Your task to perform on an android device: turn pop-ups off in chrome Image 0: 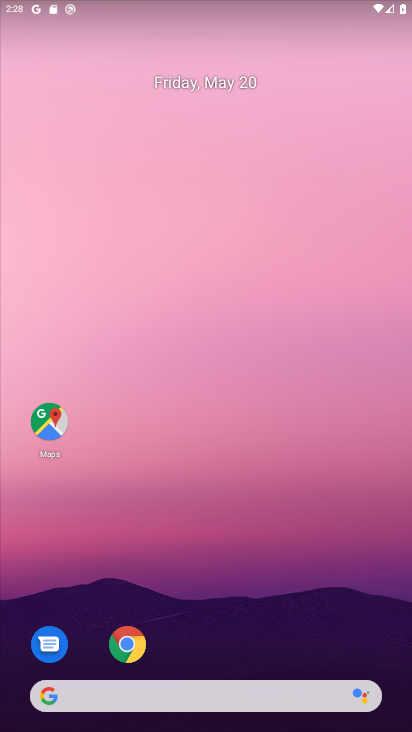
Step 0: click (139, 647)
Your task to perform on an android device: turn pop-ups off in chrome Image 1: 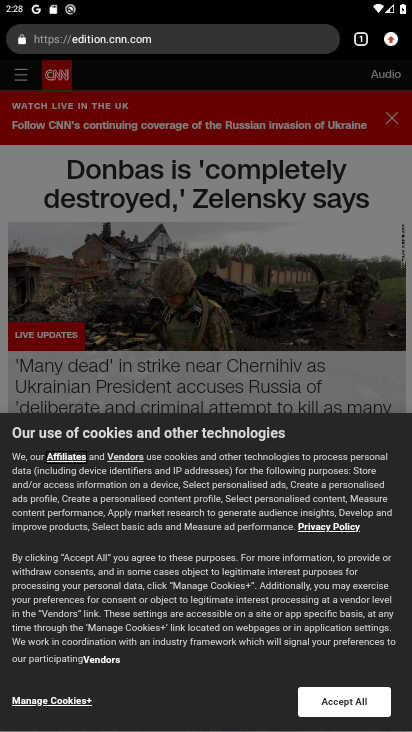
Step 1: click (394, 38)
Your task to perform on an android device: turn pop-ups off in chrome Image 2: 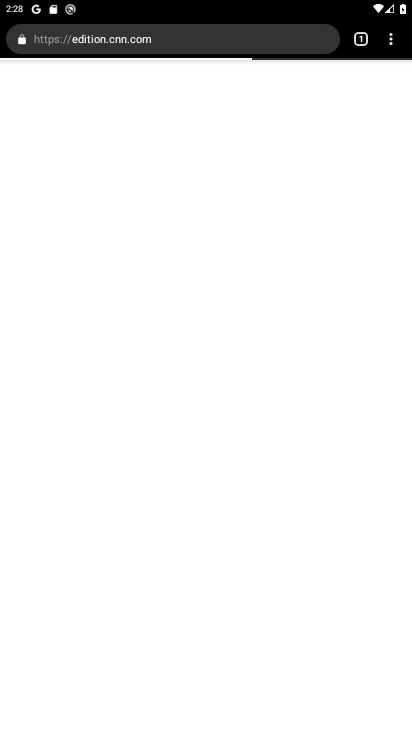
Step 2: click (394, 38)
Your task to perform on an android device: turn pop-ups off in chrome Image 3: 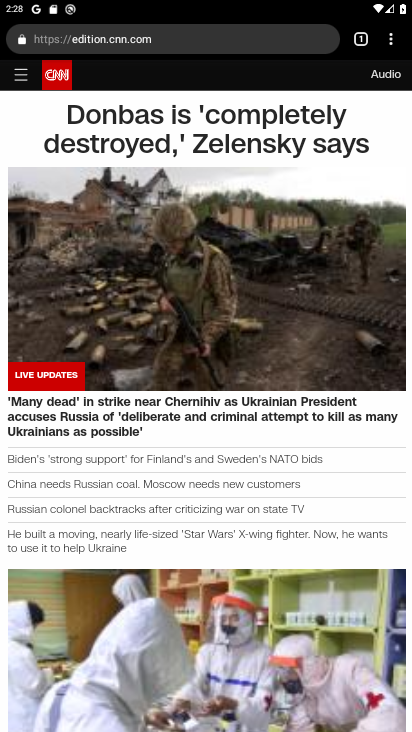
Step 3: drag from (390, 44) to (290, 476)
Your task to perform on an android device: turn pop-ups off in chrome Image 4: 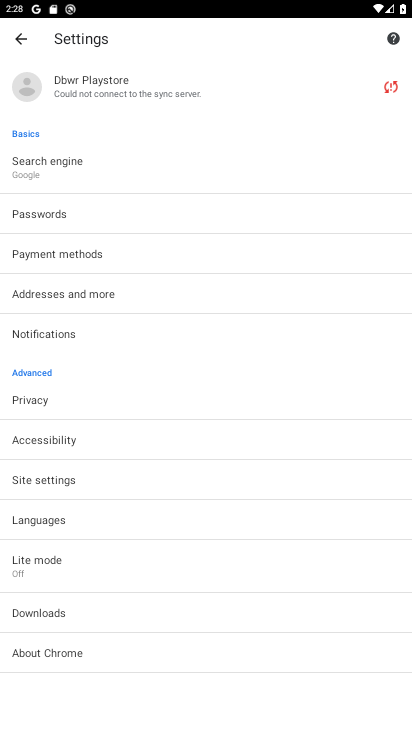
Step 4: drag from (181, 555) to (174, 247)
Your task to perform on an android device: turn pop-ups off in chrome Image 5: 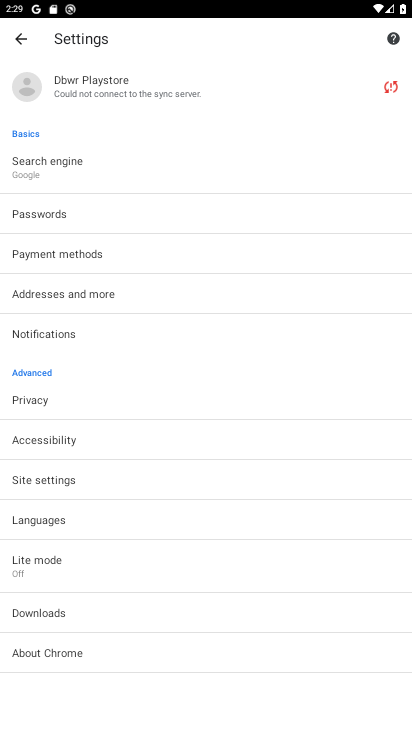
Step 5: click (108, 474)
Your task to perform on an android device: turn pop-ups off in chrome Image 6: 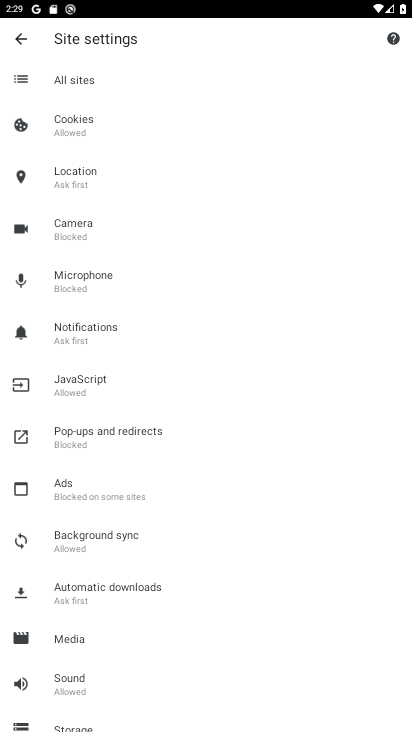
Step 6: click (140, 441)
Your task to perform on an android device: turn pop-ups off in chrome Image 7: 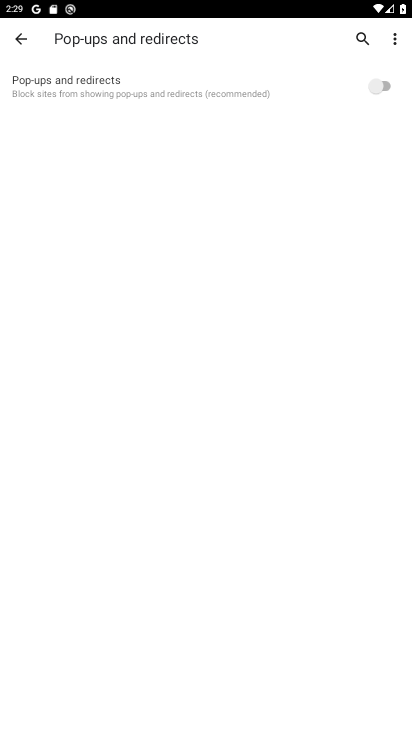
Step 7: task complete